Your task to perform on an android device: turn on data saver in the chrome app Image 0: 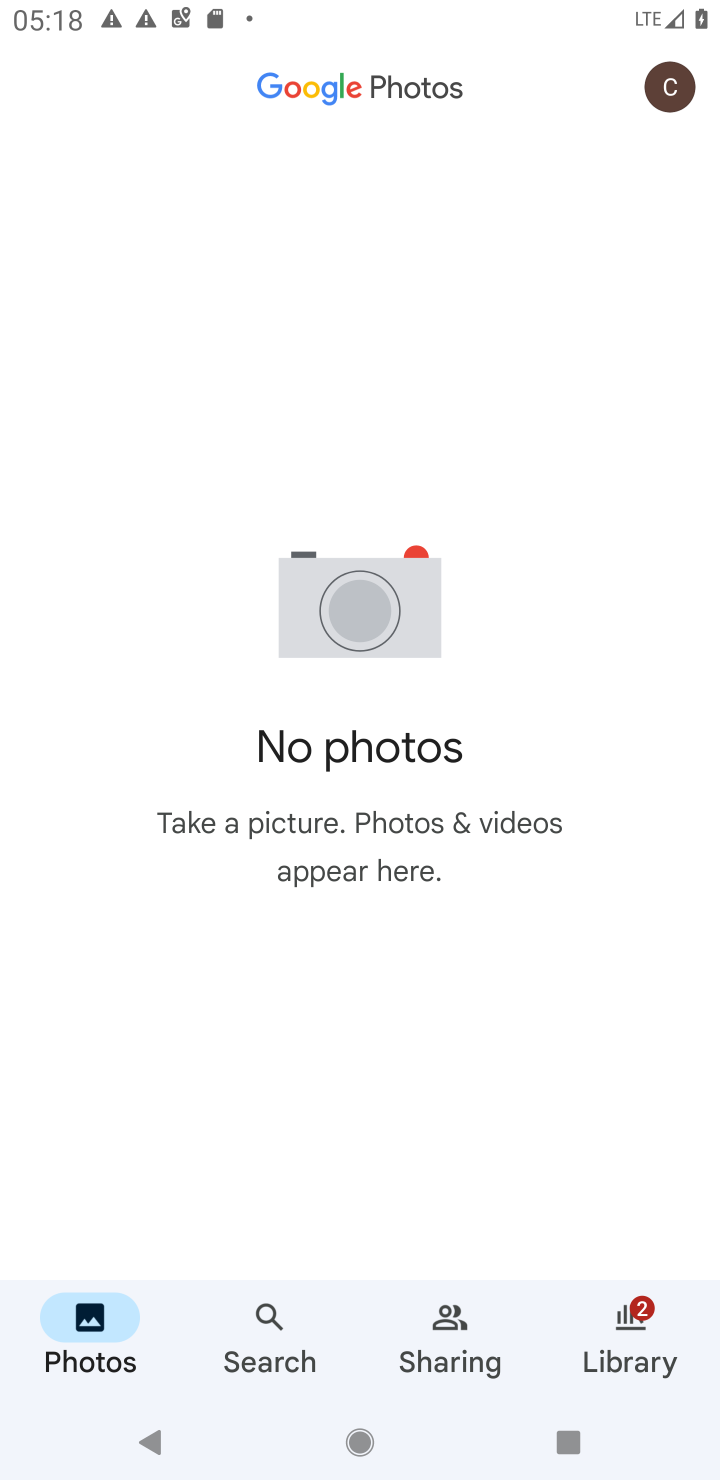
Step 0: press home button
Your task to perform on an android device: turn on data saver in the chrome app Image 1: 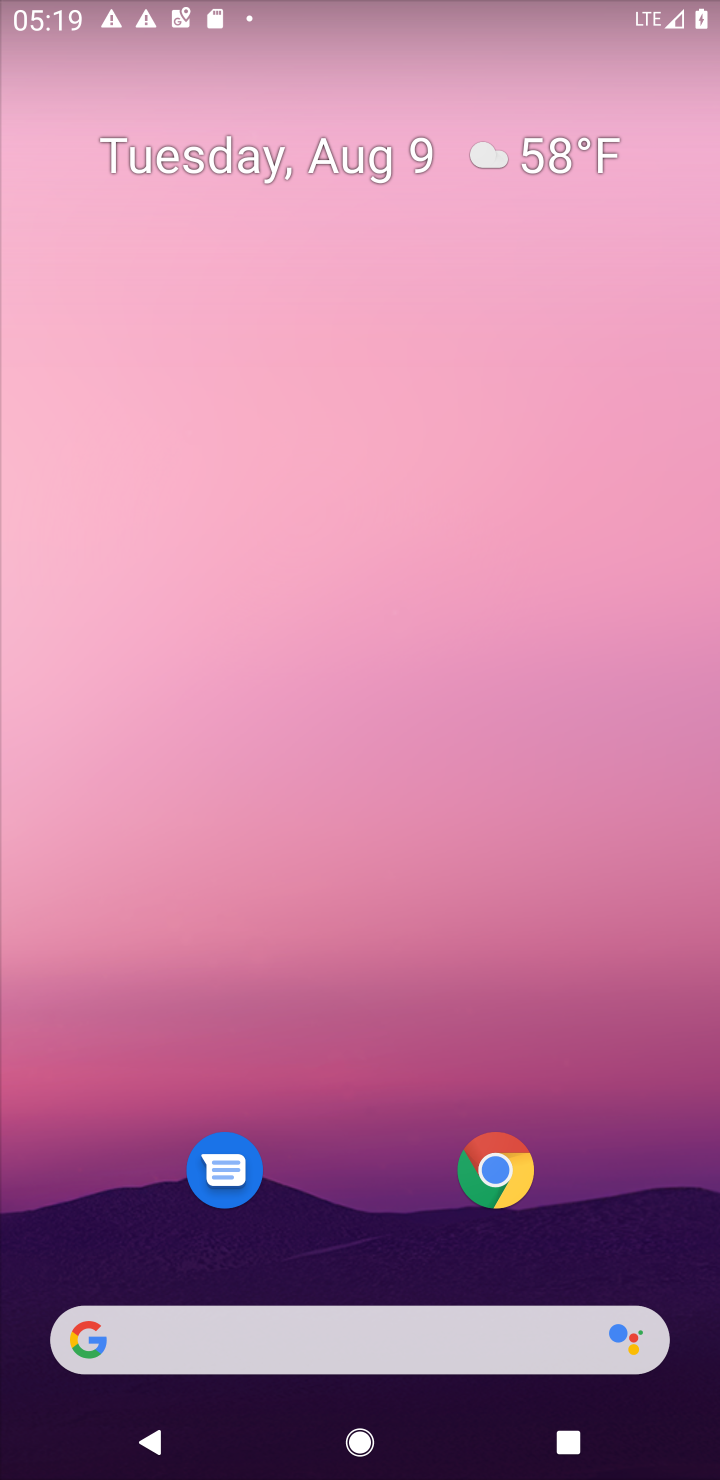
Step 1: click (492, 1175)
Your task to perform on an android device: turn on data saver in the chrome app Image 2: 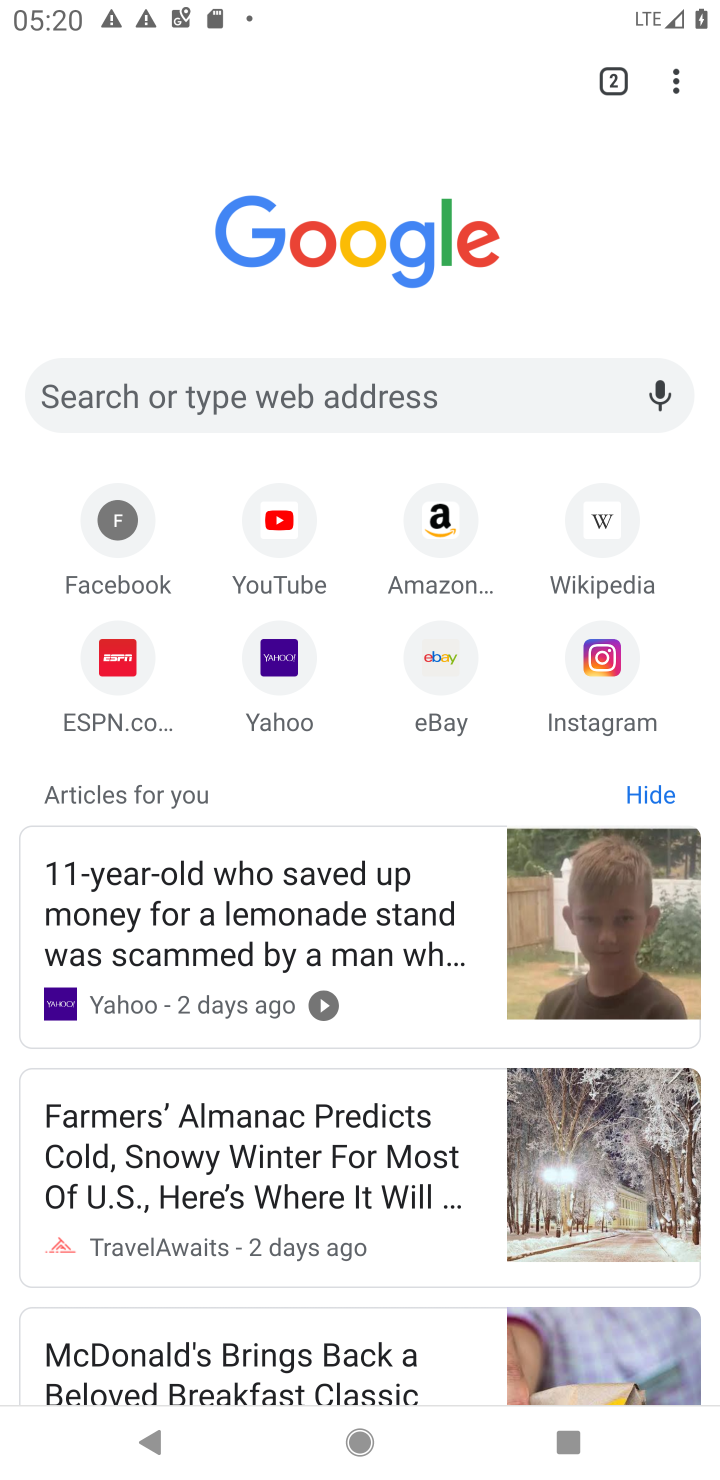
Step 2: drag from (675, 86) to (387, 679)
Your task to perform on an android device: turn on data saver in the chrome app Image 3: 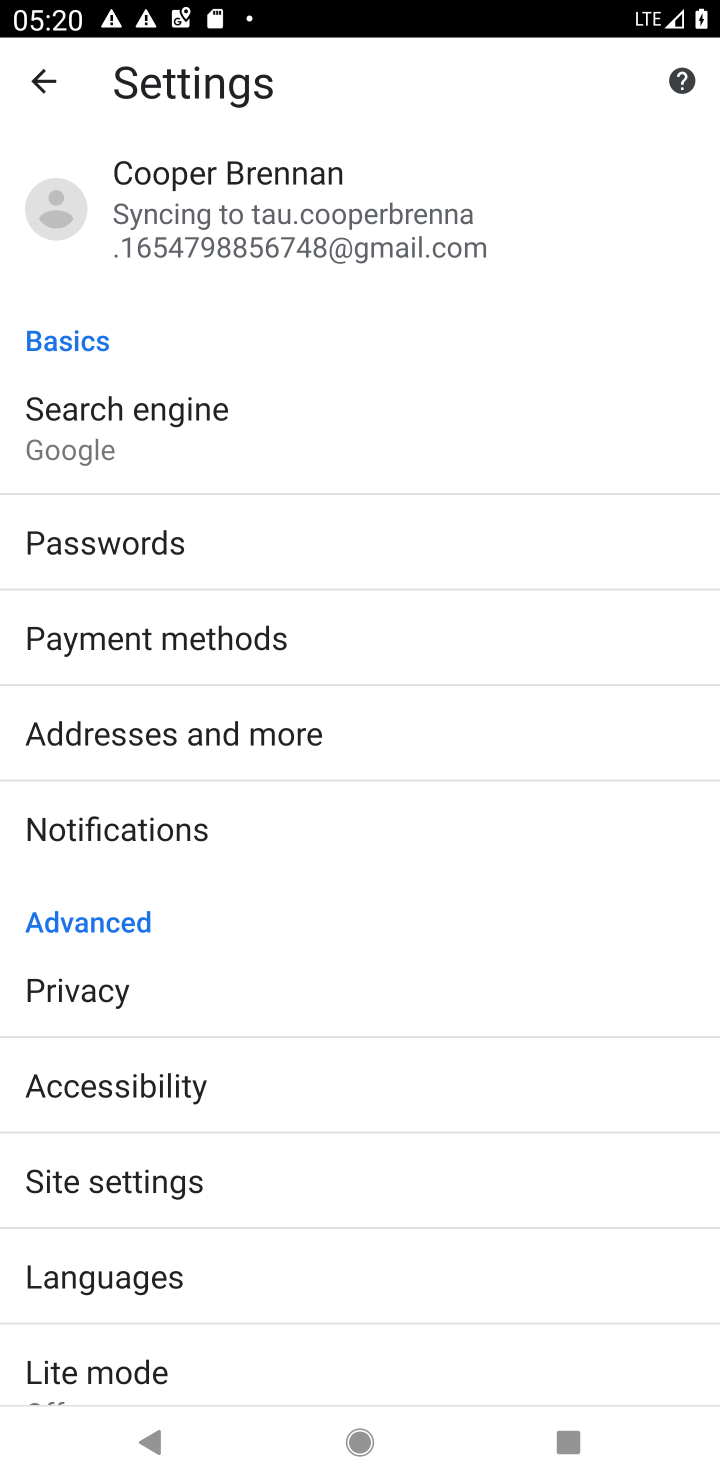
Step 3: drag from (472, 1358) to (391, 484)
Your task to perform on an android device: turn on data saver in the chrome app Image 4: 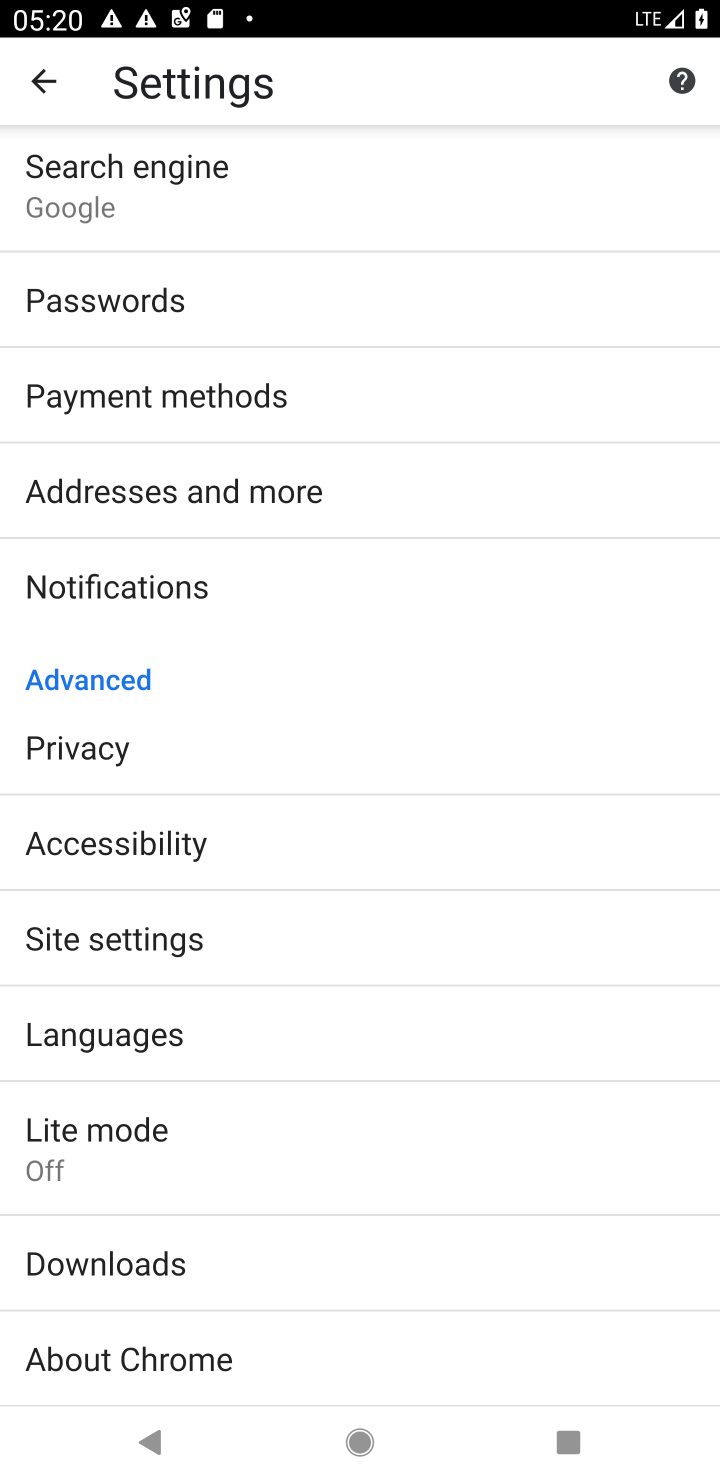
Step 4: click (88, 1140)
Your task to perform on an android device: turn on data saver in the chrome app Image 5: 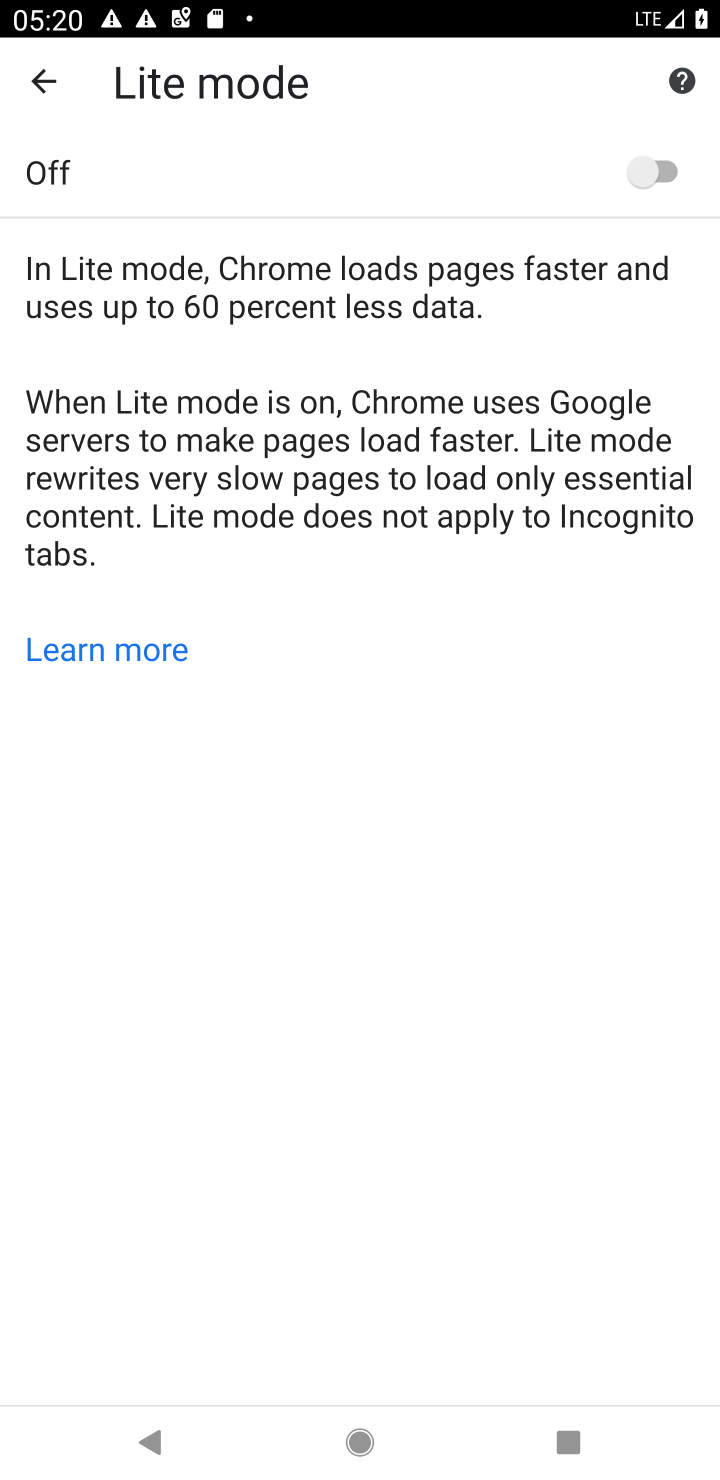
Step 5: click (644, 167)
Your task to perform on an android device: turn on data saver in the chrome app Image 6: 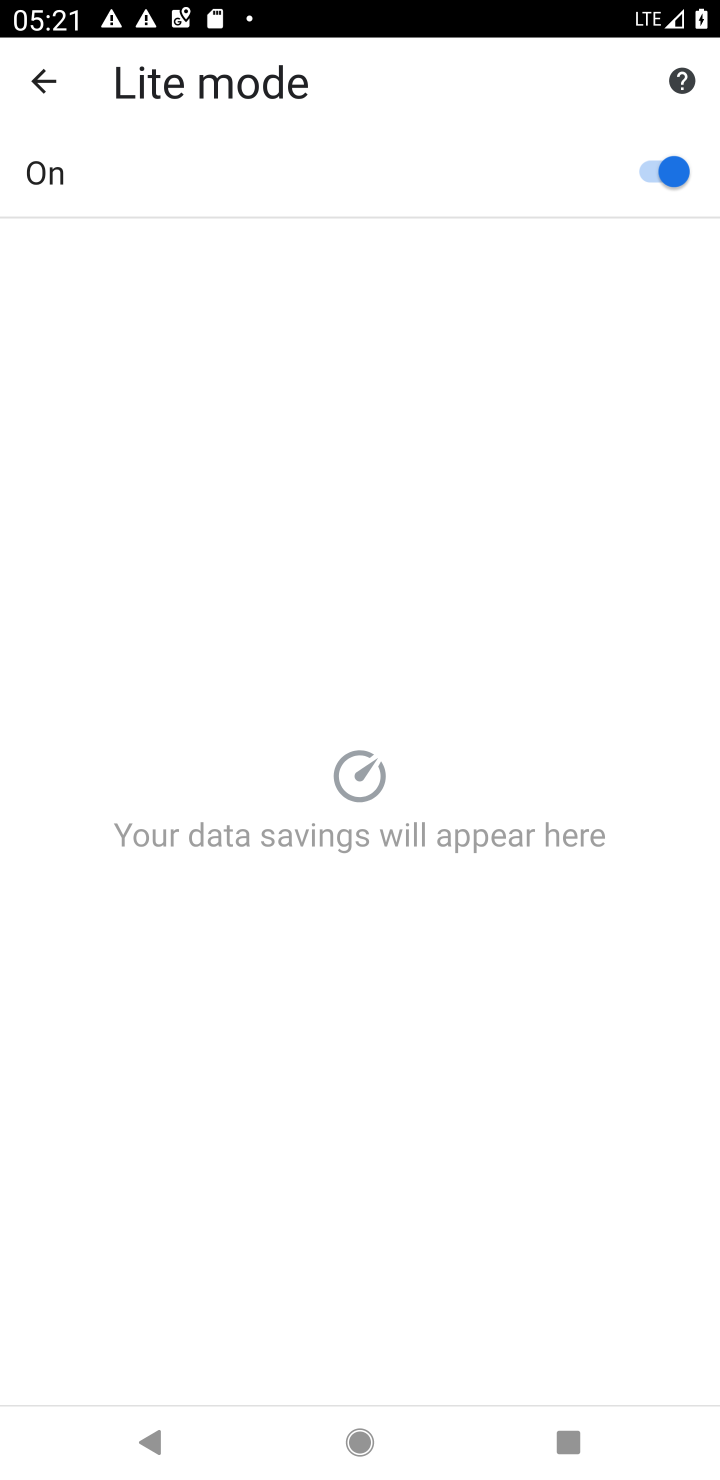
Step 6: task complete